Your task to perform on an android device: open wifi settings Image 0: 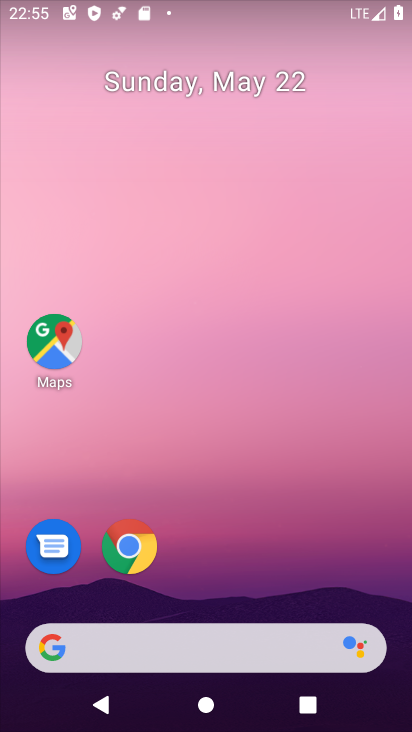
Step 0: click (261, 79)
Your task to perform on an android device: open wifi settings Image 1: 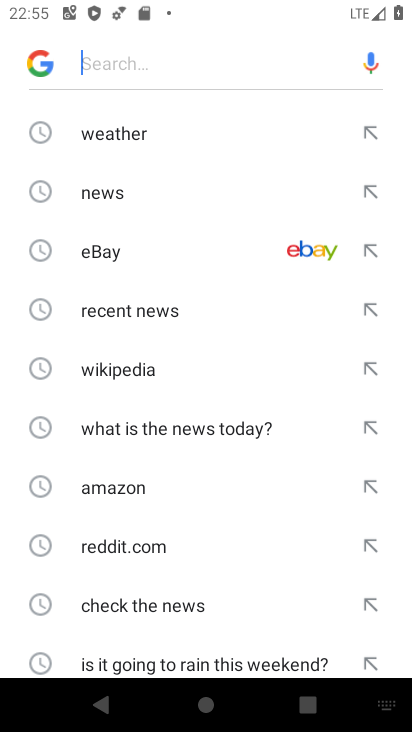
Step 1: press home button
Your task to perform on an android device: open wifi settings Image 2: 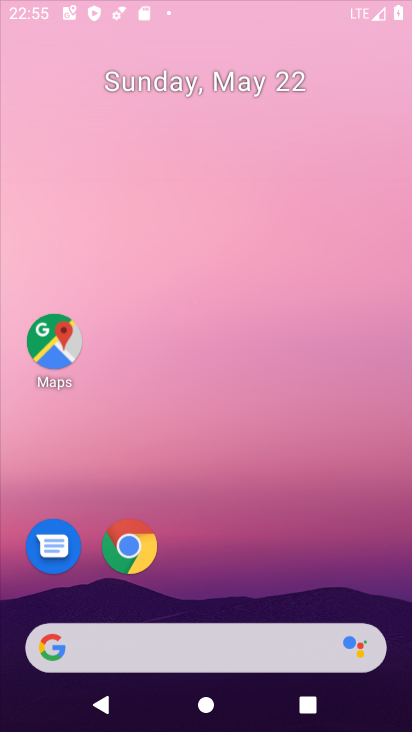
Step 2: drag from (195, 605) to (315, 9)
Your task to perform on an android device: open wifi settings Image 3: 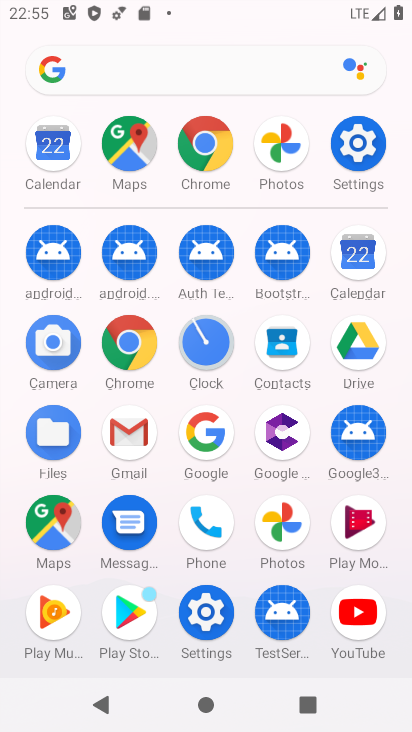
Step 3: click (346, 153)
Your task to perform on an android device: open wifi settings Image 4: 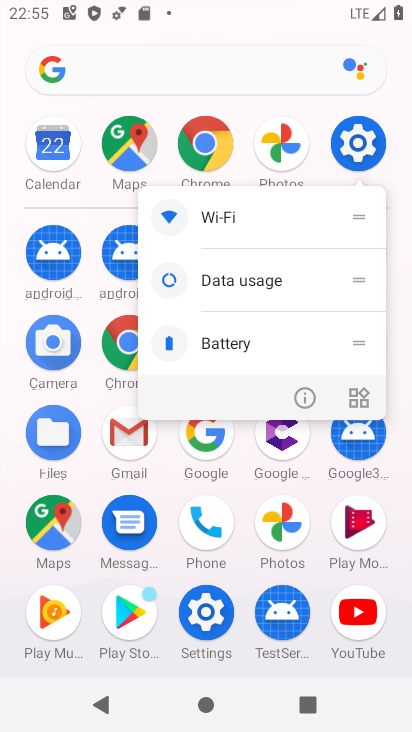
Step 4: click (240, 211)
Your task to perform on an android device: open wifi settings Image 5: 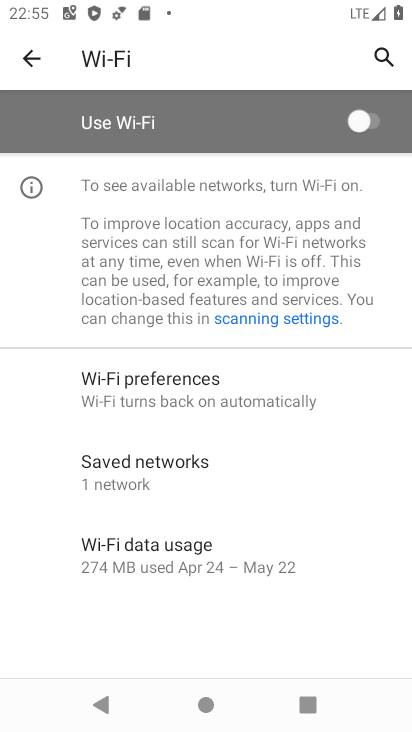
Step 5: task complete